Your task to perform on an android device: toggle notifications settings in the gmail app Image 0: 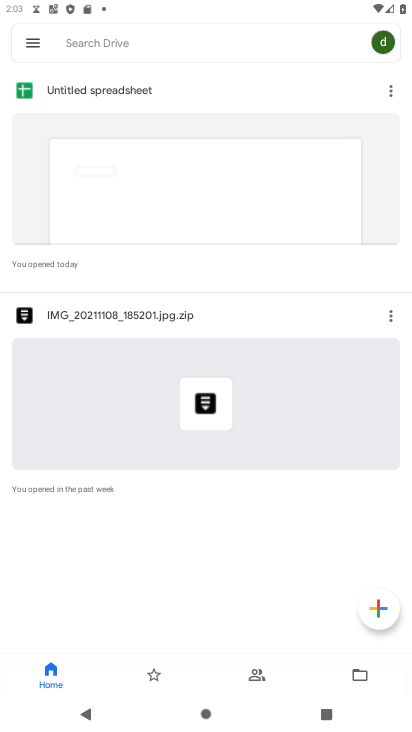
Step 0: press home button
Your task to perform on an android device: toggle notifications settings in the gmail app Image 1: 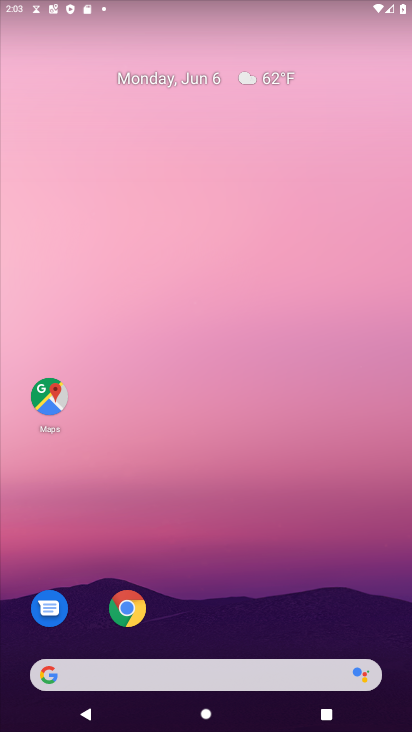
Step 1: drag from (261, 593) to (304, 7)
Your task to perform on an android device: toggle notifications settings in the gmail app Image 2: 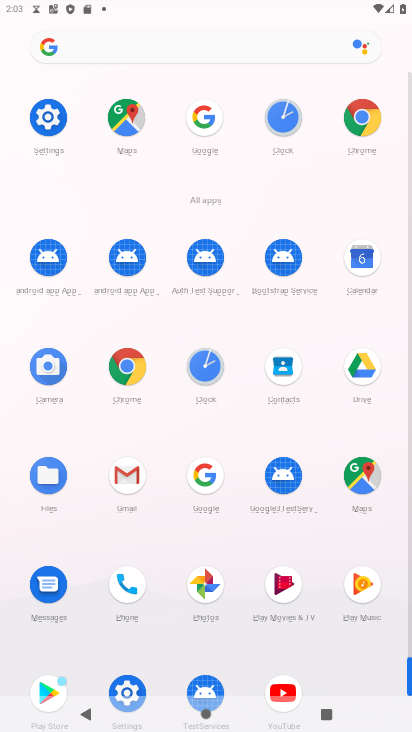
Step 2: click (124, 485)
Your task to perform on an android device: toggle notifications settings in the gmail app Image 3: 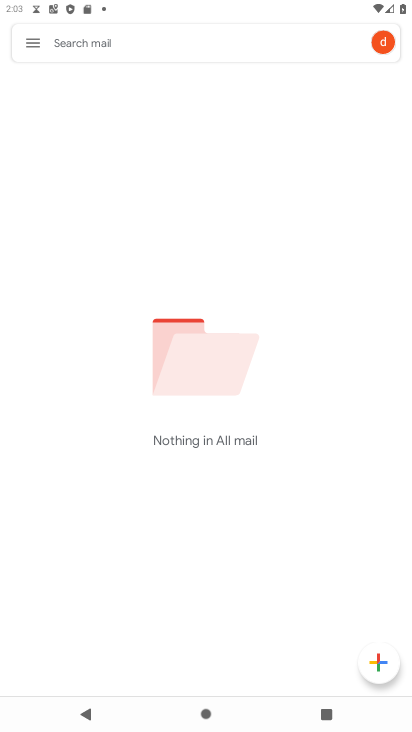
Step 3: click (32, 32)
Your task to perform on an android device: toggle notifications settings in the gmail app Image 4: 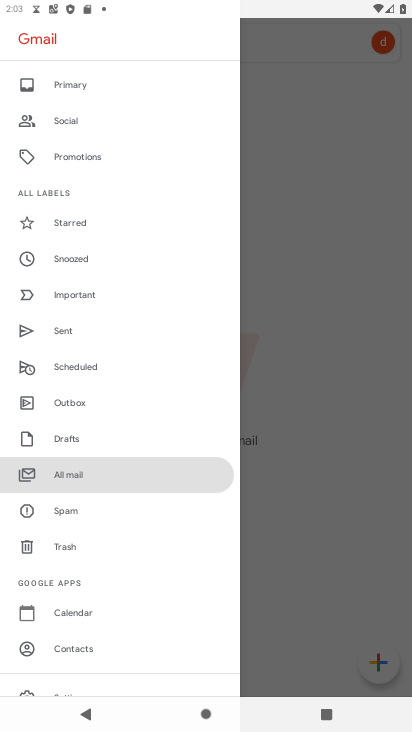
Step 4: drag from (83, 622) to (169, 99)
Your task to perform on an android device: toggle notifications settings in the gmail app Image 5: 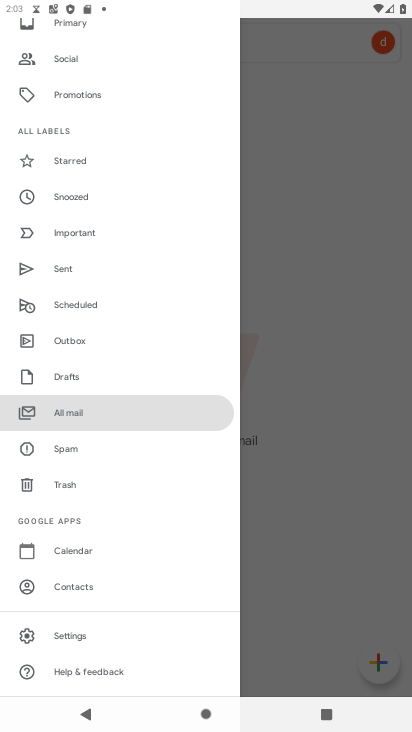
Step 5: click (55, 628)
Your task to perform on an android device: toggle notifications settings in the gmail app Image 6: 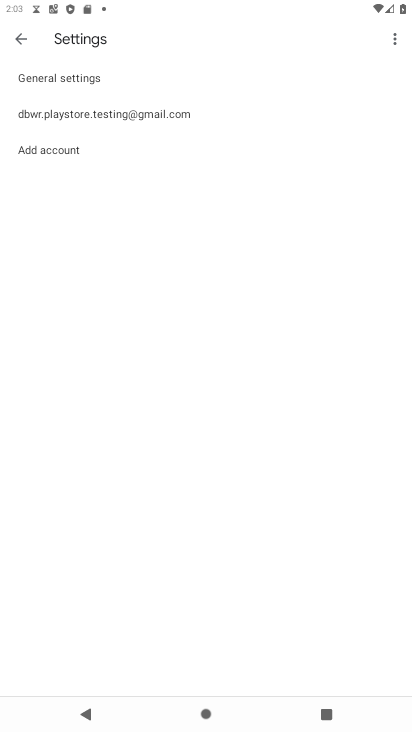
Step 6: click (49, 111)
Your task to perform on an android device: toggle notifications settings in the gmail app Image 7: 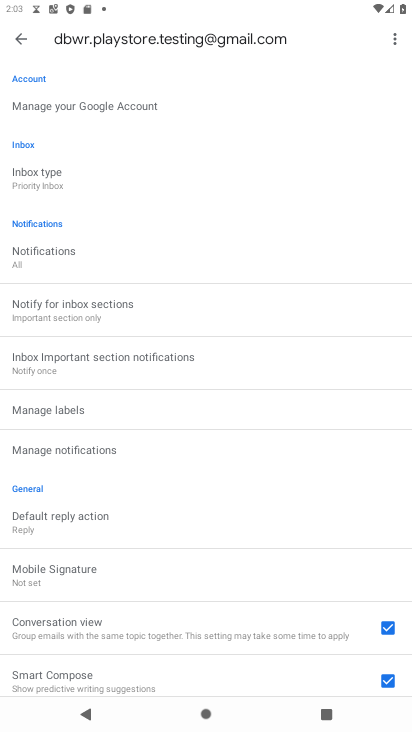
Step 7: click (25, 263)
Your task to perform on an android device: toggle notifications settings in the gmail app Image 8: 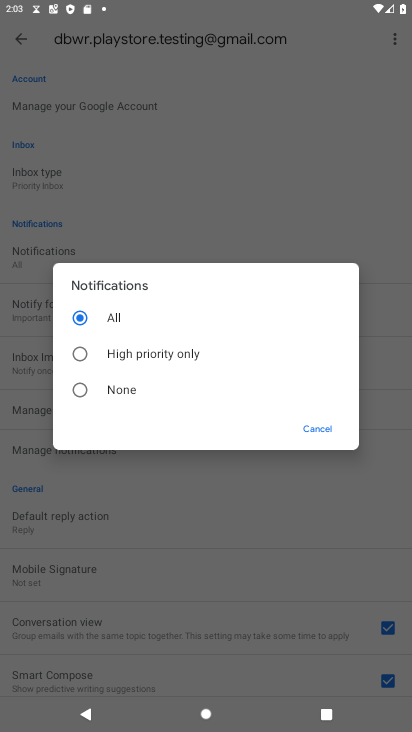
Step 8: click (93, 347)
Your task to perform on an android device: toggle notifications settings in the gmail app Image 9: 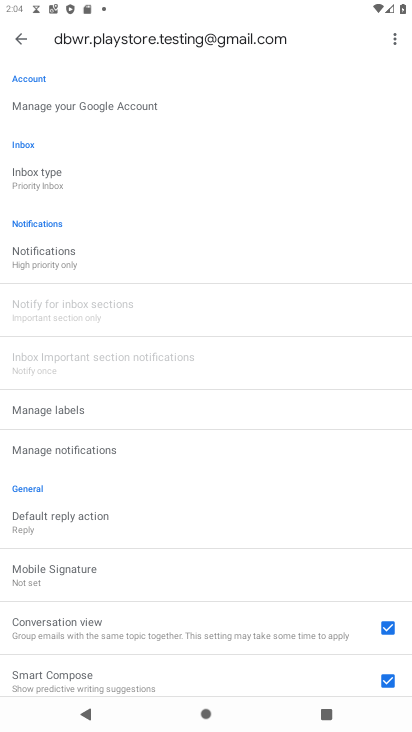
Step 9: task complete